Your task to perform on an android device: Search for "usb-c to usb-b" on walmart.com, select the first entry, add it to the cart, then select checkout. Image 0: 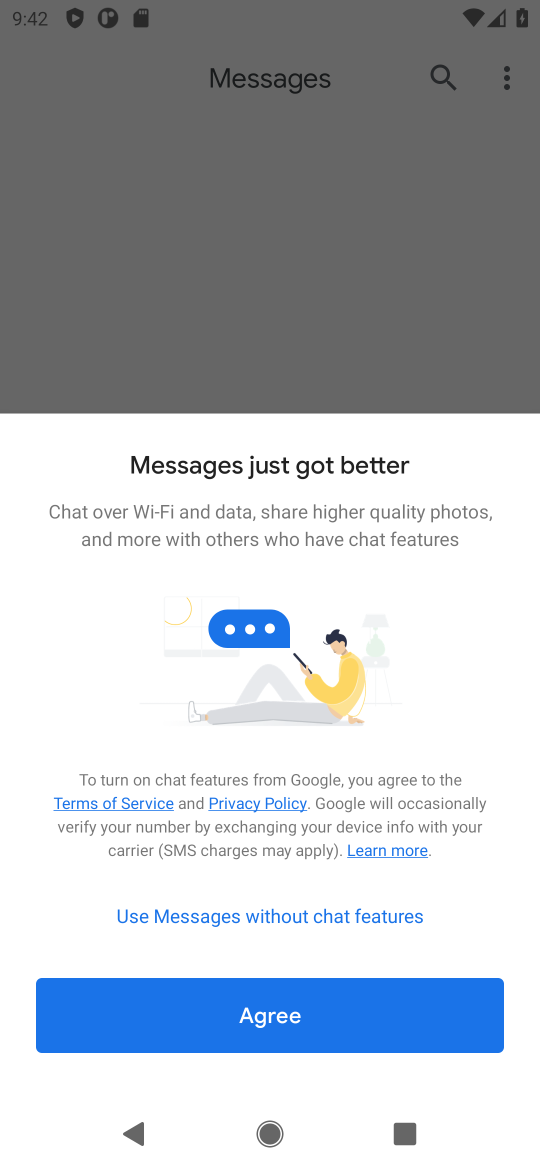
Step 0: press home button
Your task to perform on an android device: Search for "usb-c to usb-b" on walmart.com, select the first entry, add it to the cart, then select checkout. Image 1: 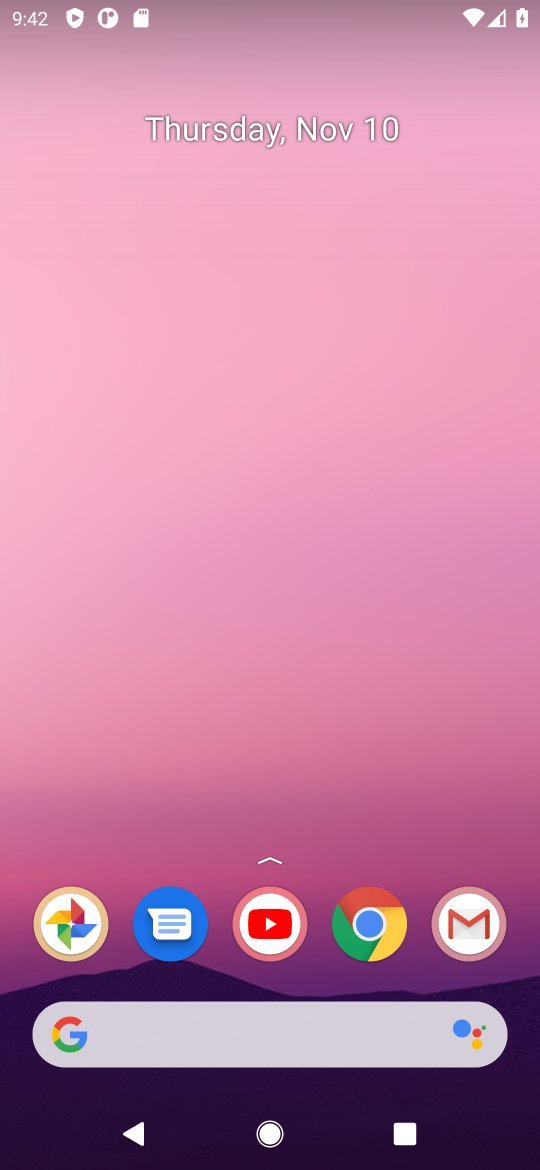
Step 1: click (355, 931)
Your task to perform on an android device: Search for "usb-c to usb-b" on walmart.com, select the first entry, add it to the cart, then select checkout. Image 2: 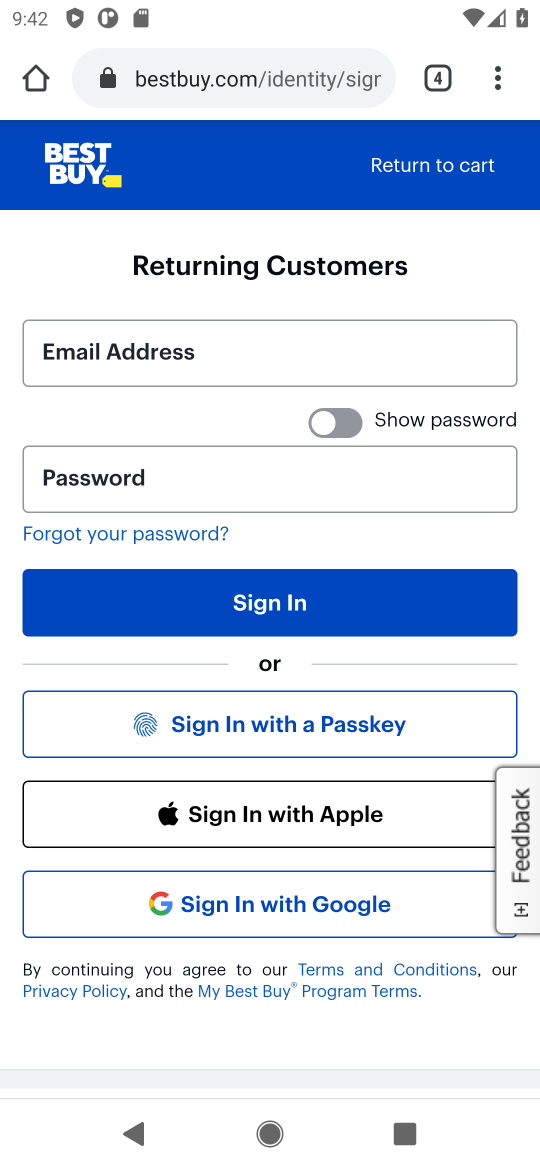
Step 2: click (225, 81)
Your task to perform on an android device: Search for "usb-c to usb-b" on walmart.com, select the first entry, add it to the cart, then select checkout. Image 3: 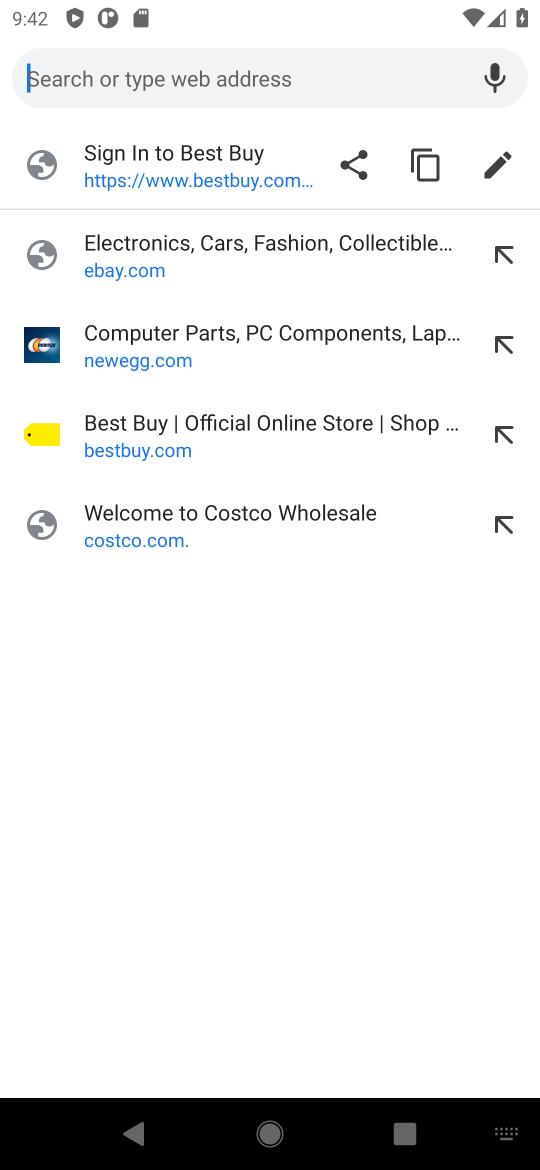
Step 3: type "walmart.com"
Your task to perform on an android device: Search for "usb-c to usb-b" on walmart.com, select the first entry, add it to the cart, then select checkout. Image 4: 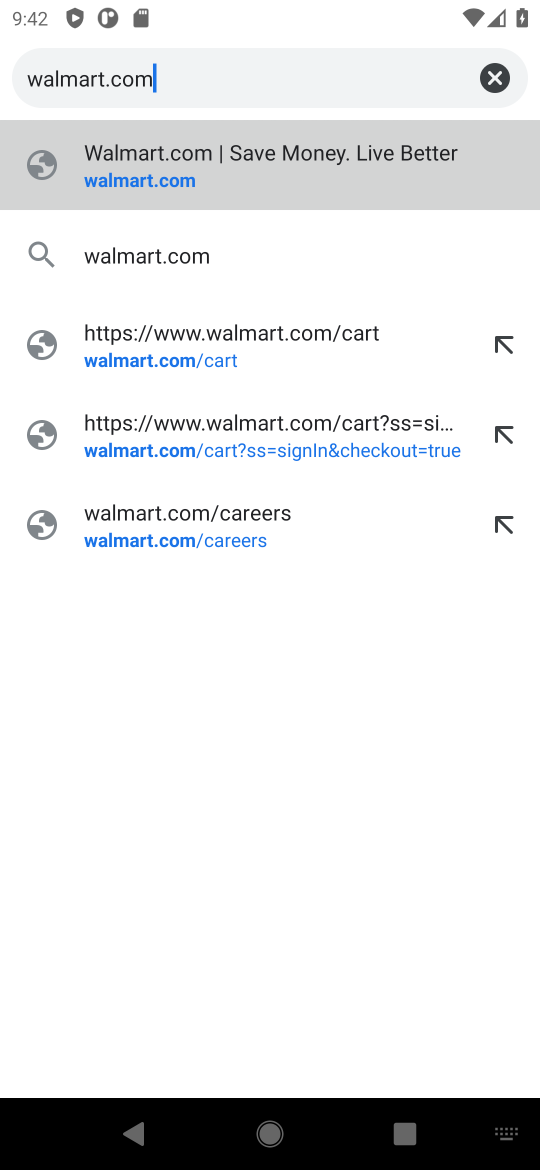
Step 4: click (99, 194)
Your task to perform on an android device: Search for "usb-c to usb-b" on walmart.com, select the first entry, add it to the cart, then select checkout. Image 5: 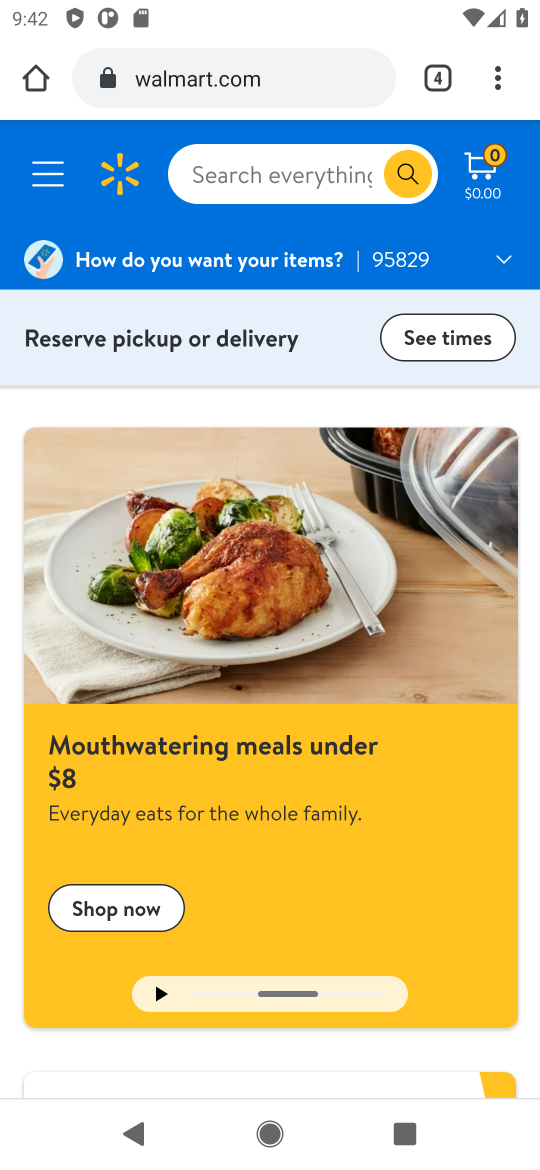
Step 5: click (286, 189)
Your task to perform on an android device: Search for "usb-c to usb-b" on walmart.com, select the first entry, add it to the cart, then select checkout. Image 6: 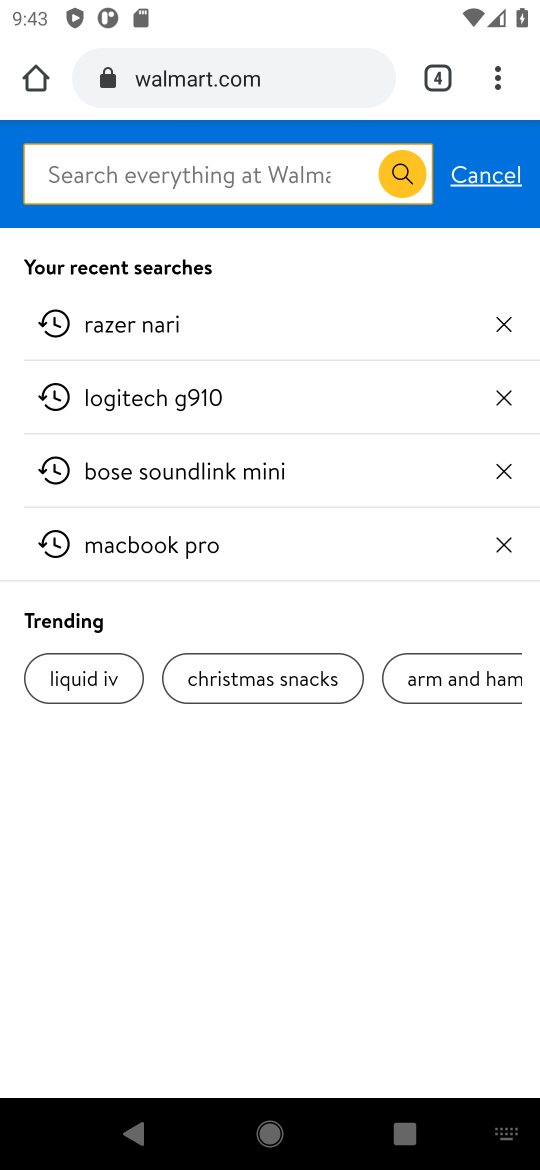
Step 6: type "usb-c to usb-b"
Your task to perform on an android device: Search for "usb-c to usb-b" on walmart.com, select the first entry, add it to the cart, then select checkout. Image 7: 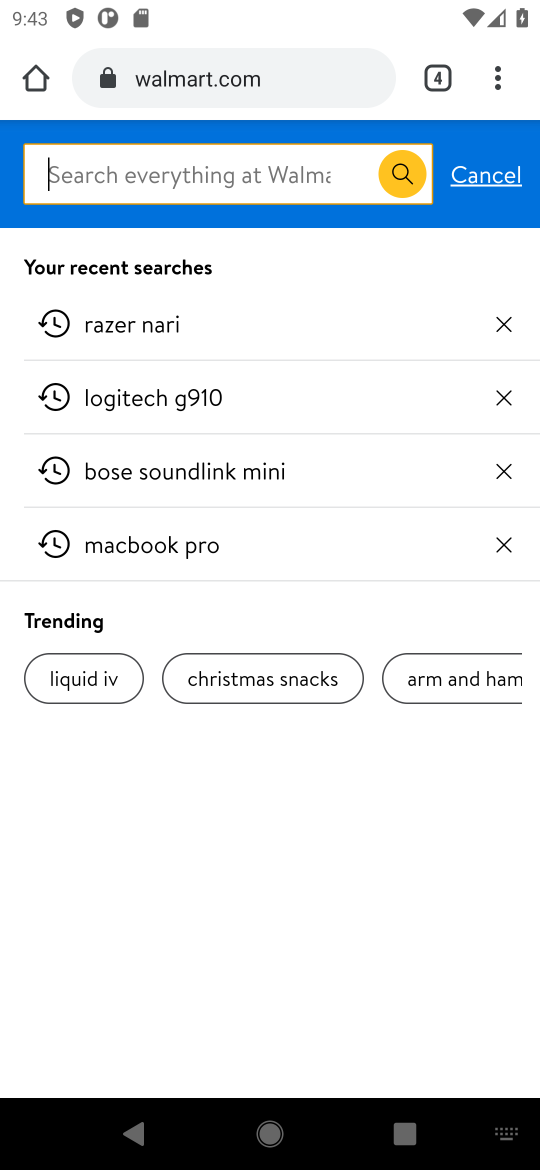
Step 7: click (171, 177)
Your task to perform on an android device: Search for "usb-c to usb-b" on walmart.com, select the first entry, add it to the cart, then select checkout. Image 8: 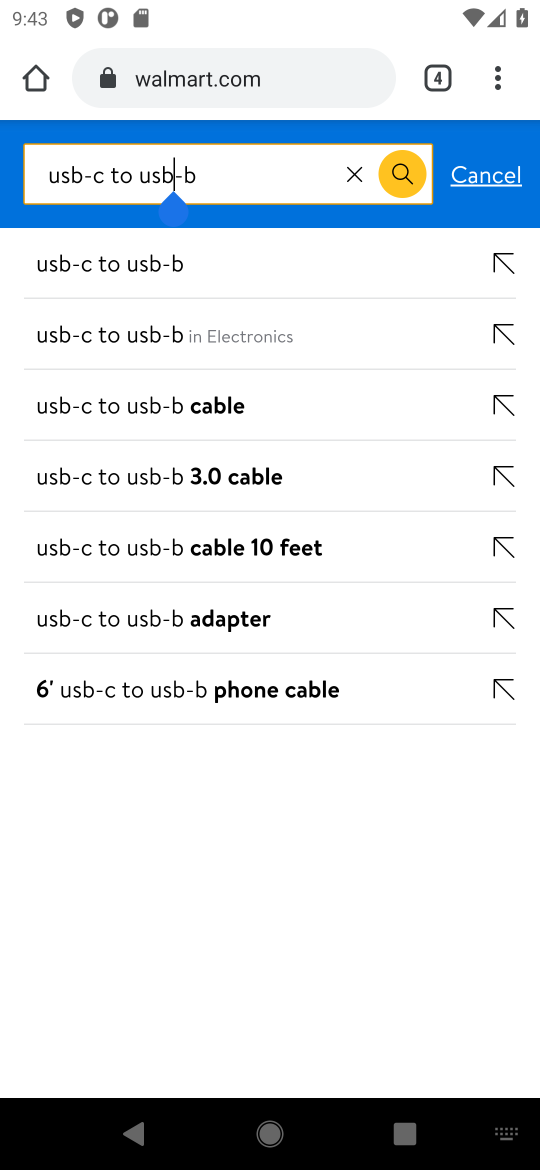
Step 8: click (145, 265)
Your task to perform on an android device: Search for "usb-c to usb-b" on walmart.com, select the first entry, add it to the cart, then select checkout. Image 9: 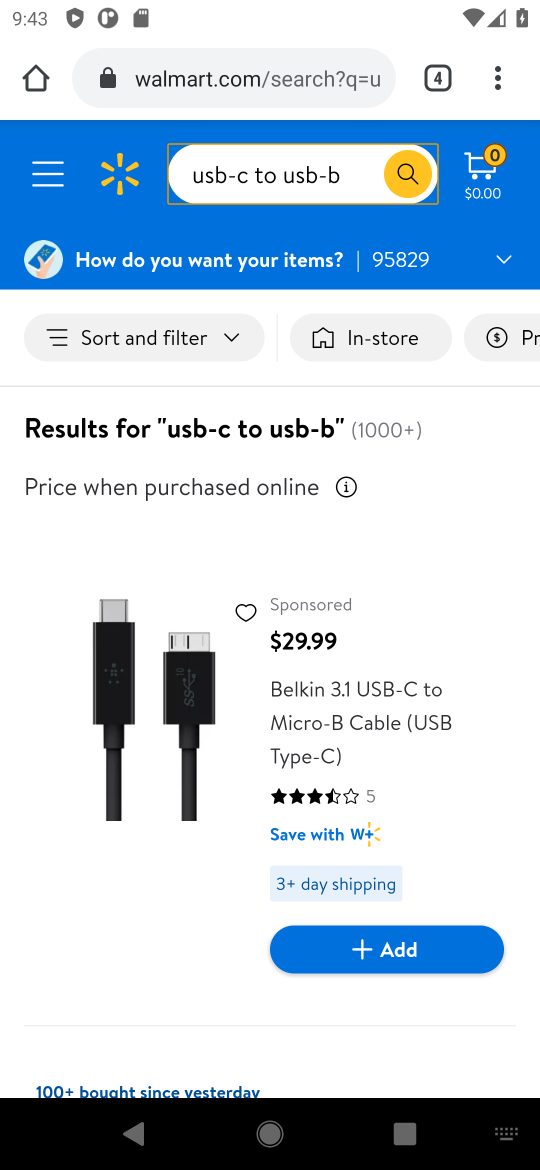
Step 9: click (444, 952)
Your task to perform on an android device: Search for "usb-c to usb-b" on walmart.com, select the first entry, add it to the cart, then select checkout. Image 10: 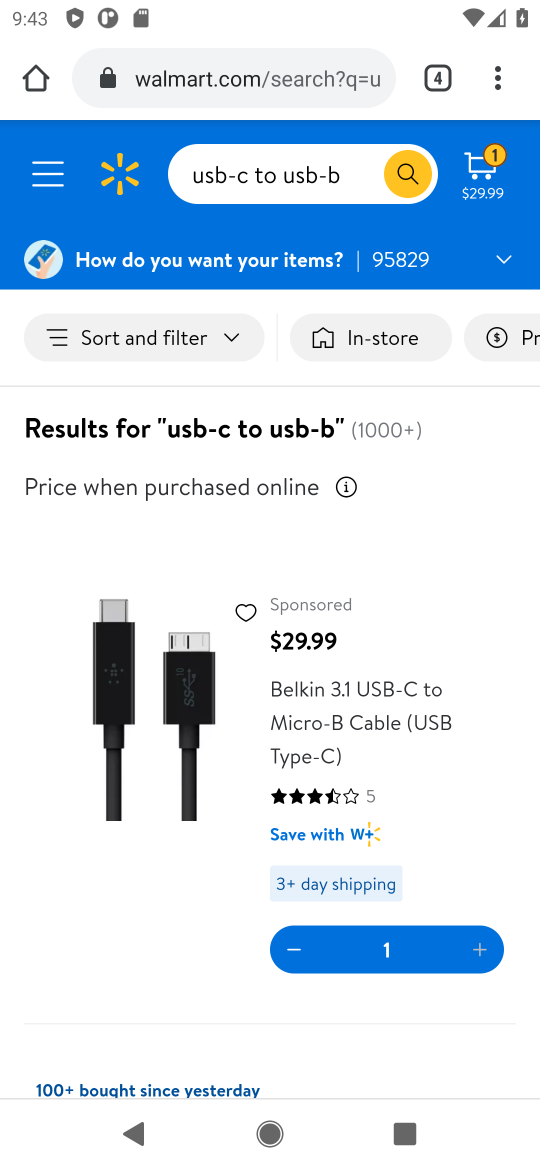
Step 10: click (507, 175)
Your task to perform on an android device: Search for "usb-c to usb-b" on walmart.com, select the first entry, add it to the cart, then select checkout. Image 11: 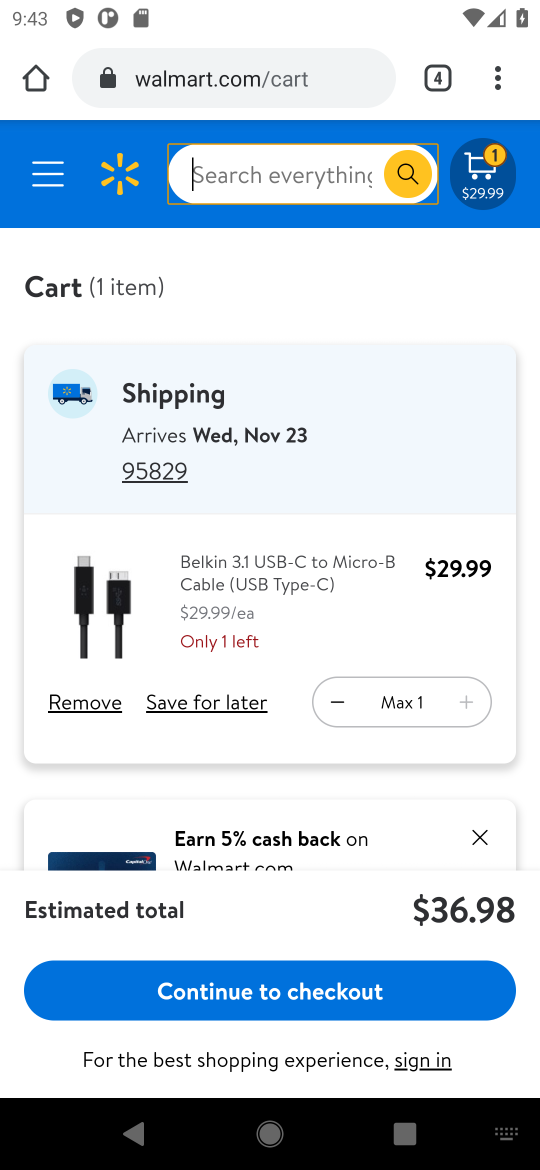
Step 11: click (261, 990)
Your task to perform on an android device: Search for "usb-c to usb-b" on walmart.com, select the first entry, add it to the cart, then select checkout. Image 12: 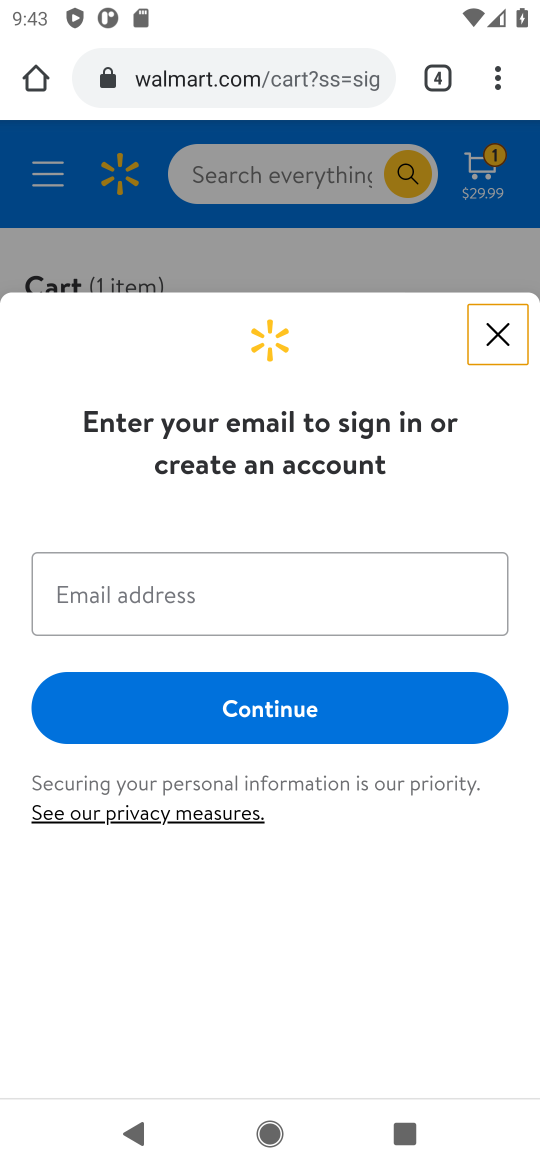
Step 12: task complete